Your task to perform on an android device: Open notification settings Image 0: 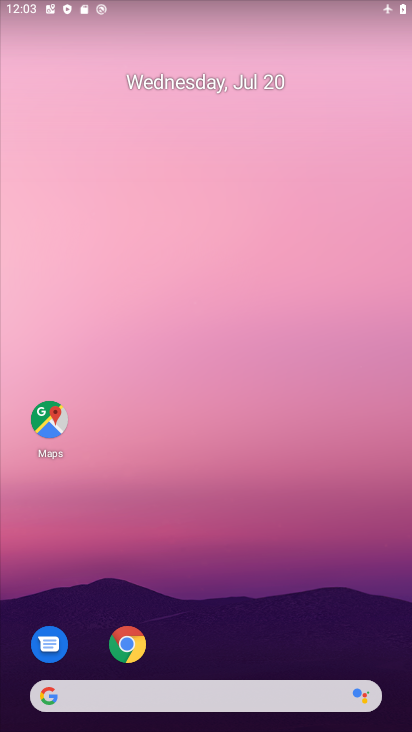
Step 0: press home button
Your task to perform on an android device: Open notification settings Image 1: 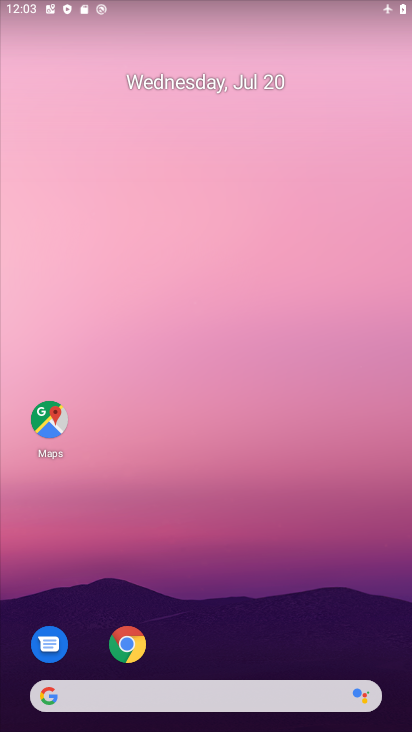
Step 1: drag from (286, 567) to (350, 14)
Your task to perform on an android device: Open notification settings Image 2: 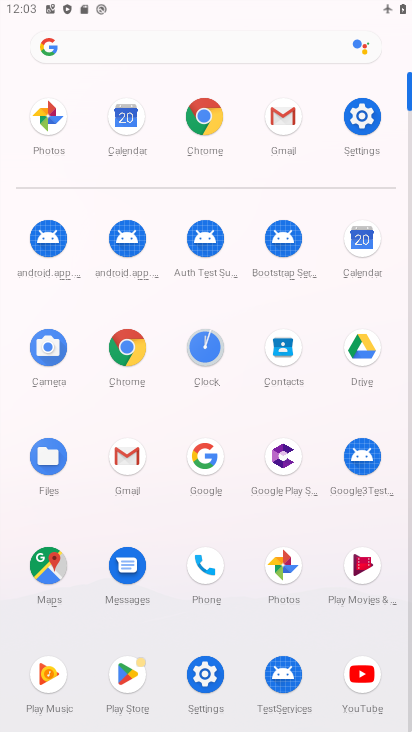
Step 2: click (208, 662)
Your task to perform on an android device: Open notification settings Image 3: 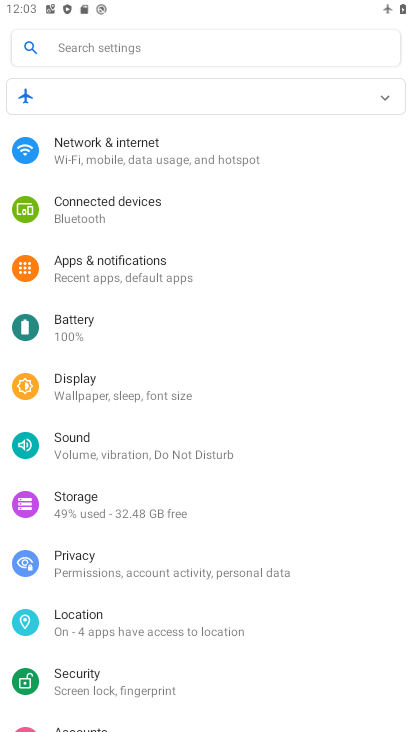
Step 3: click (166, 267)
Your task to perform on an android device: Open notification settings Image 4: 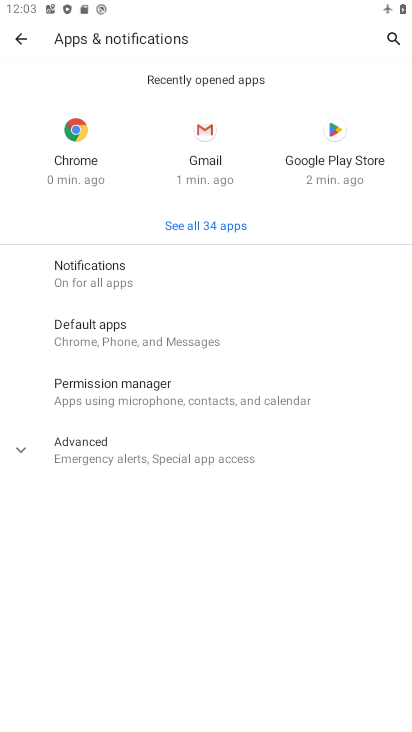
Step 4: click (163, 272)
Your task to perform on an android device: Open notification settings Image 5: 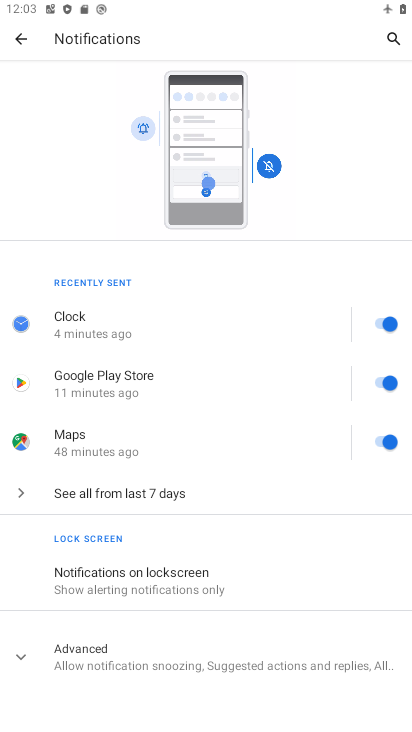
Step 5: click (198, 651)
Your task to perform on an android device: Open notification settings Image 6: 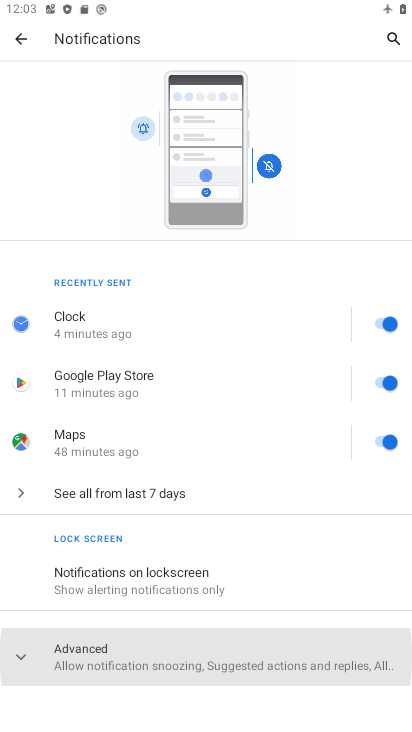
Step 6: drag from (198, 649) to (213, 278)
Your task to perform on an android device: Open notification settings Image 7: 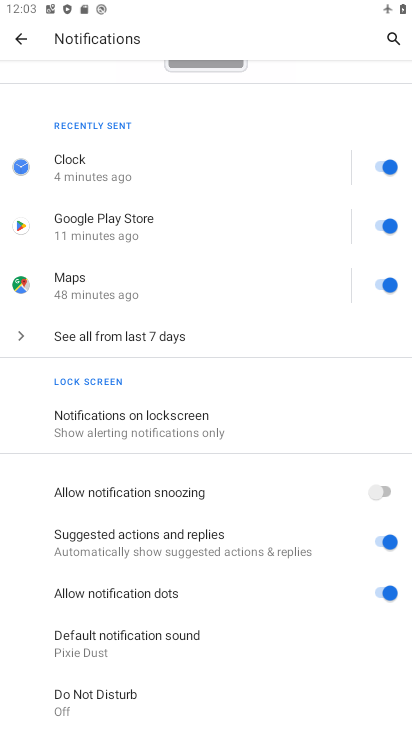
Step 7: click (228, 528)
Your task to perform on an android device: Open notification settings Image 8: 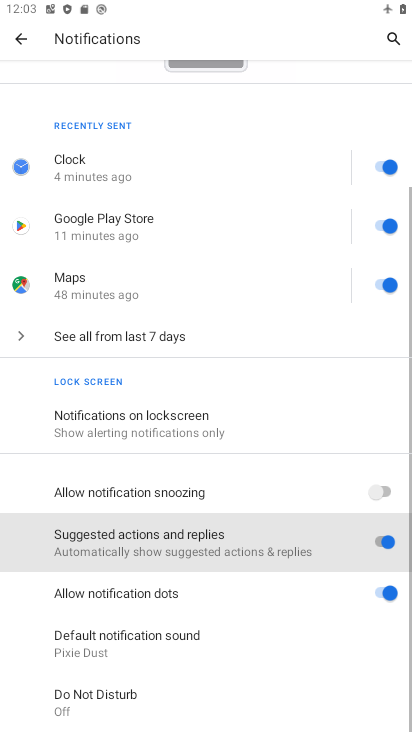
Step 8: click (230, 624)
Your task to perform on an android device: Open notification settings Image 9: 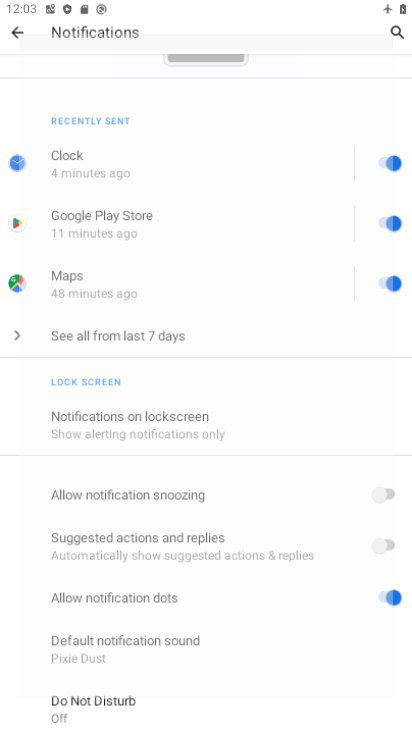
Step 9: click (229, 527)
Your task to perform on an android device: Open notification settings Image 10: 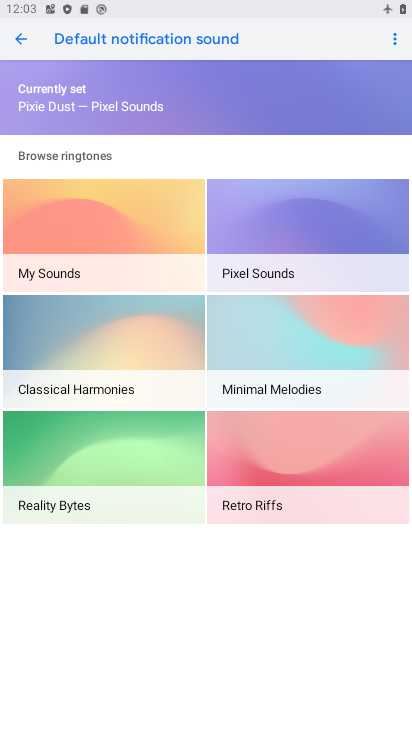
Step 10: click (23, 31)
Your task to perform on an android device: Open notification settings Image 11: 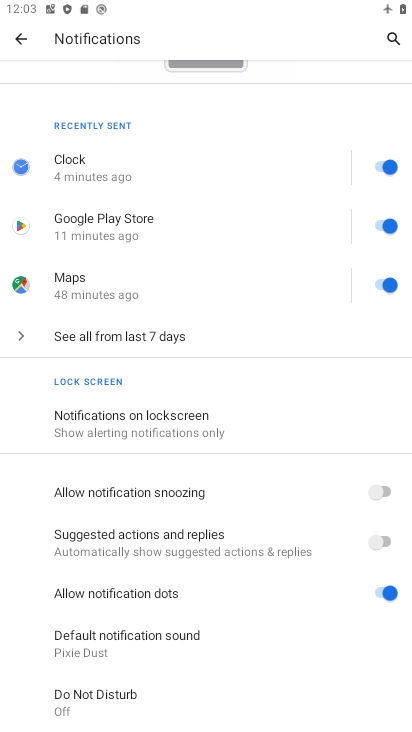
Step 11: click (394, 595)
Your task to perform on an android device: Open notification settings Image 12: 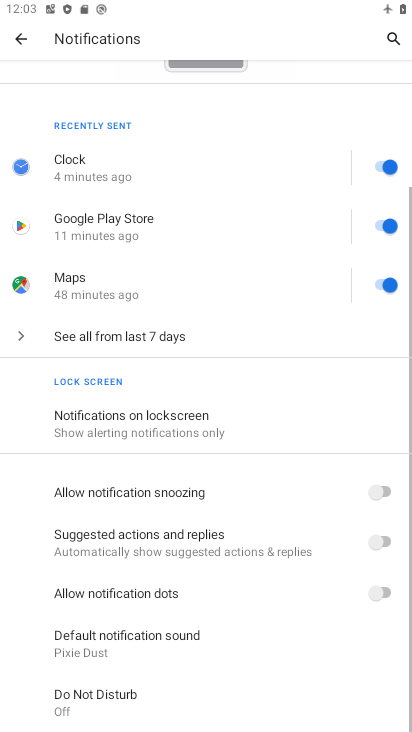
Step 12: click (358, 490)
Your task to perform on an android device: Open notification settings Image 13: 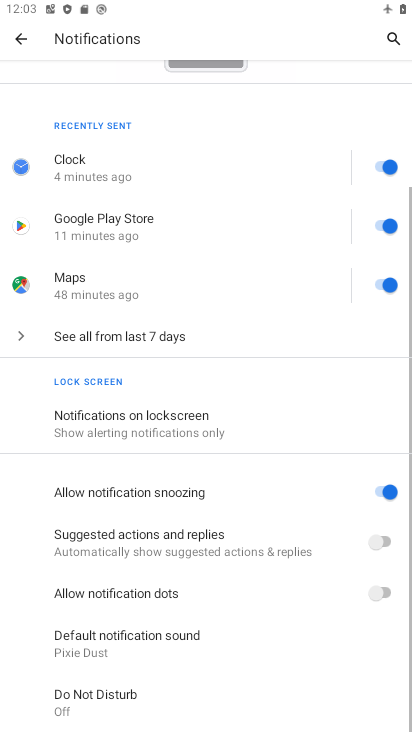
Step 13: task complete